Your task to perform on an android device: toggle priority inbox in the gmail app Image 0: 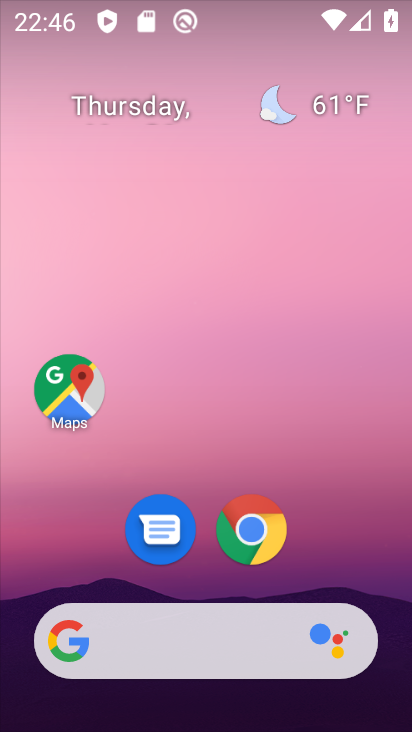
Step 0: drag from (367, 560) to (307, 153)
Your task to perform on an android device: toggle priority inbox in the gmail app Image 1: 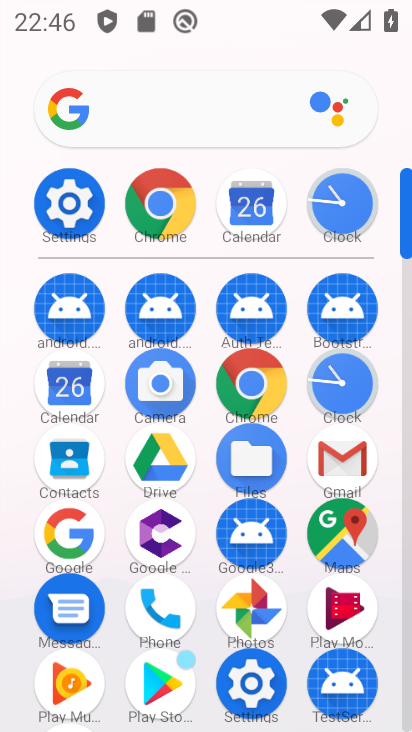
Step 1: click (360, 463)
Your task to perform on an android device: toggle priority inbox in the gmail app Image 2: 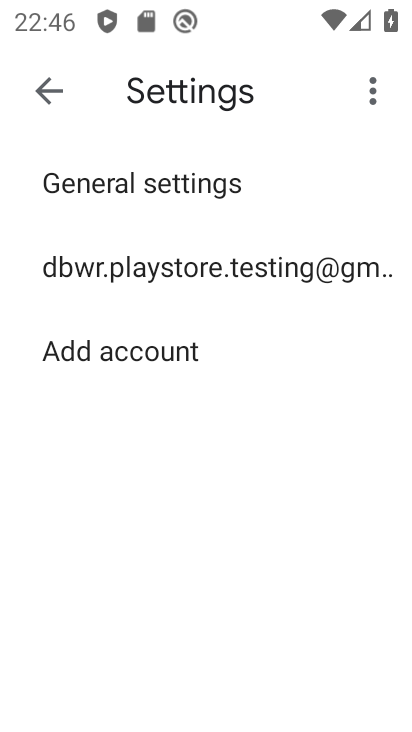
Step 2: click (53, 108)
Your task to perform on an android device: toggle priority inbox in the gmail app Image 3: 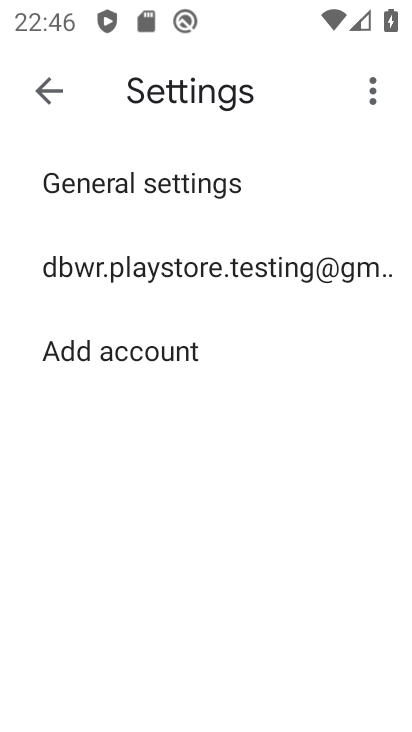
Step 3: click (53, 98)
Your task to perform on an android device: toggle priority inbox in the gmail app Image 4: 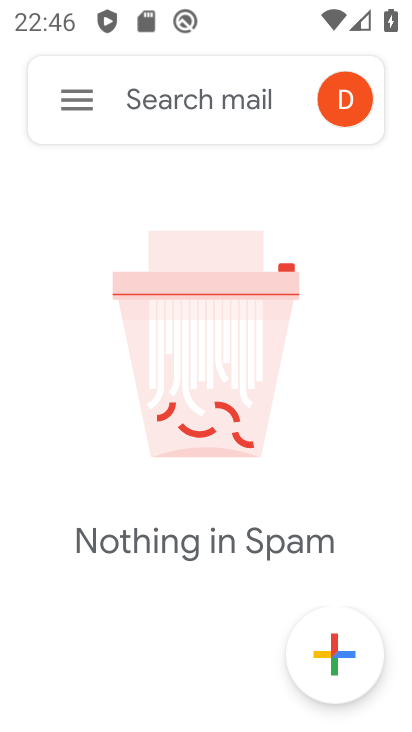
Step 4: click (53, 98)
Your task to perform on an android device: toggle priority inbox in the gmail app Image 5: 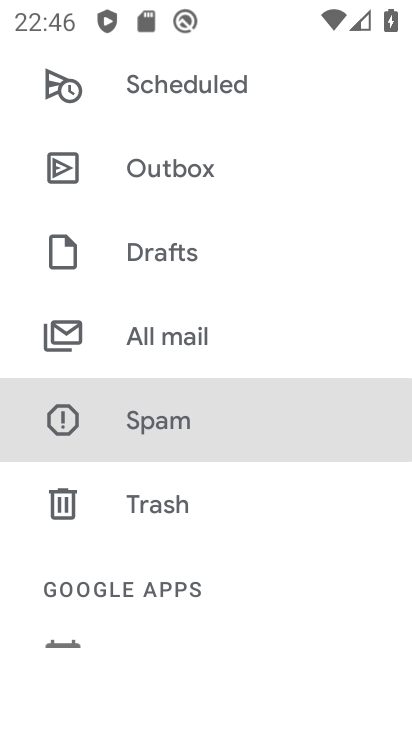
Step 5: drag from (107, 561) to (115, 518)
Your task to perform on an android device: toggle priority inbox in the gmail app Image 6: 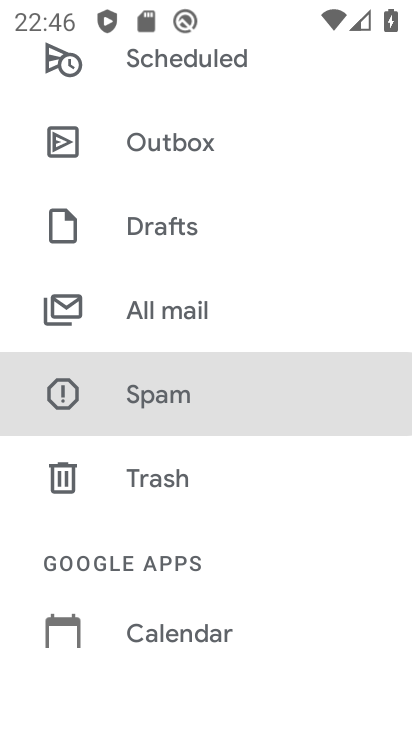
Step 6: drag from (115, 518) to (102, 224)
Your task to perform on an android device: toggle priority inbox in the gmail app Image 7: 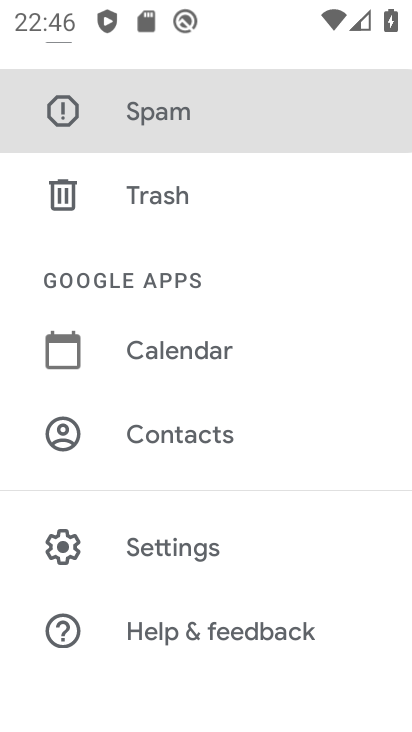
Step 7: click (158, 538)
Your task to perform on an android device: toggle priority inbox in the gmail app Image 8: 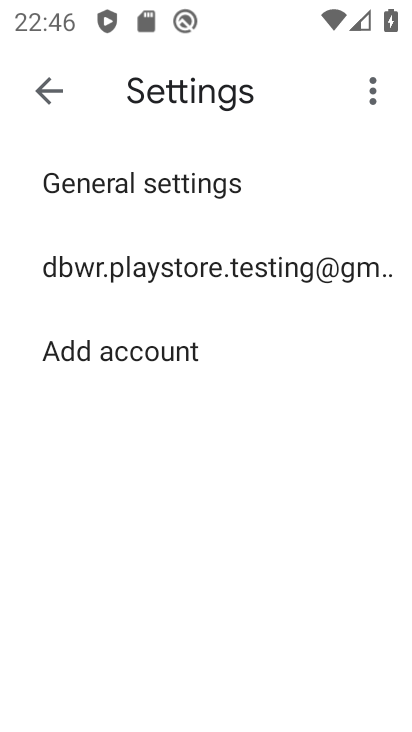
Step 8: task complete